Your task to perform on an android device: Show me popular videos on Youtube Image 0: 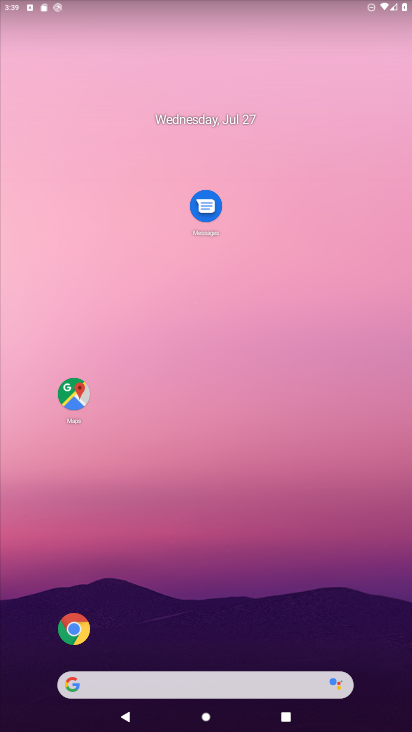
Step 0: drag from (410, 114) to (402, 65)
Your task to perform on an android device: Show me popular videos on Youtube Image 1: 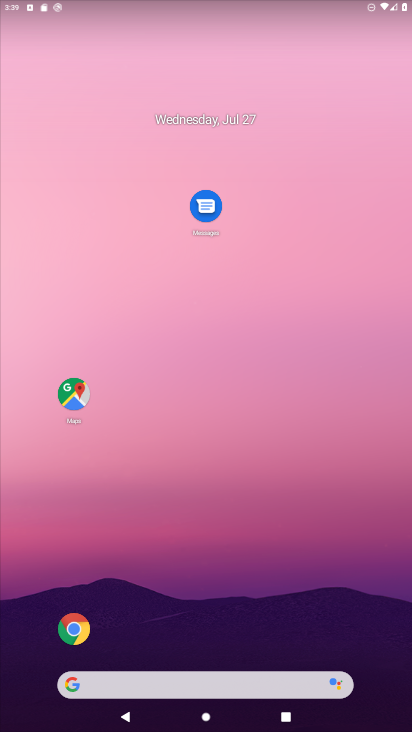
Step 1: drag from (164, 651) to (154, 220)
Your task to perform on an android device: Show me popular videos on Youtube Image 2: 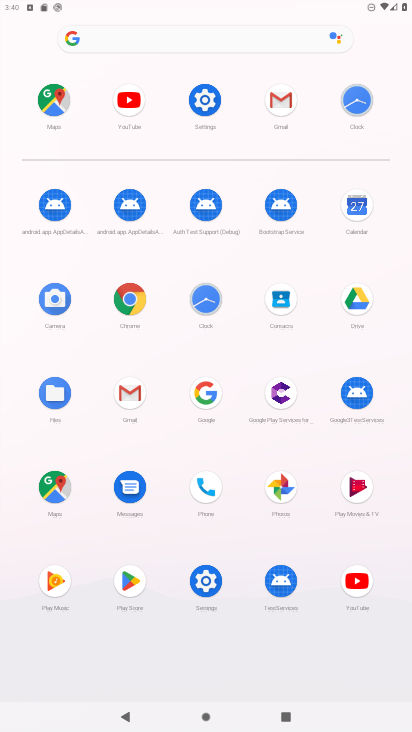
Step 2: click (124, 110)
Your task to perform on an android device: Show me popular videos on Youtube Image 3: 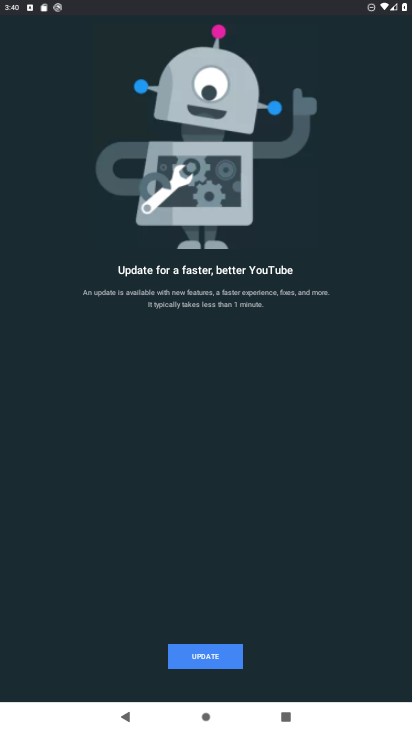
Step 3: click (200, 651)
Your task to perform on an android device: Show me popular videos on Youtube Image 4: 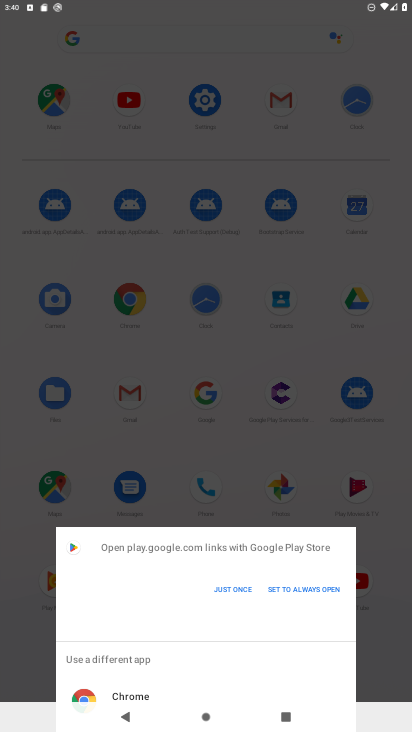
Step 4: click (227, 594)
Your task to perform on an android device: Show me popular videos on Youtube Image 5: 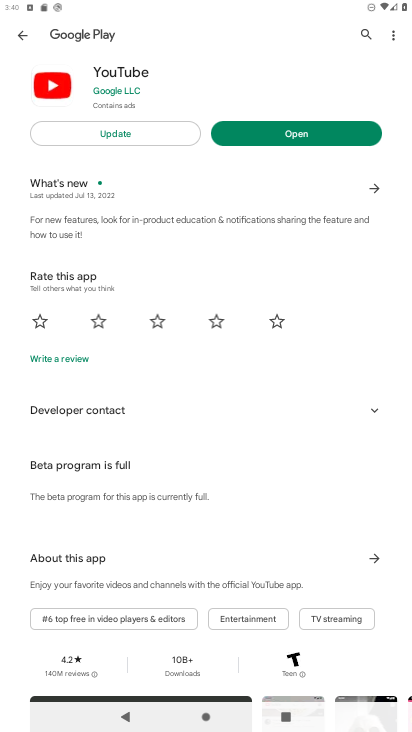
Step 5: click (136, 128)
Your task to perform on an android device: Show me popular videos on Youtube Image 6: 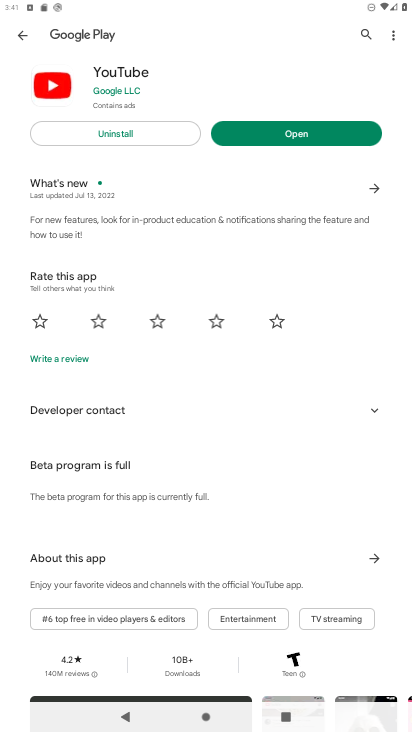
Step 6: click (282, 126)
Your task to perform on an android device: Show me popular videos on Youtube Image 7: 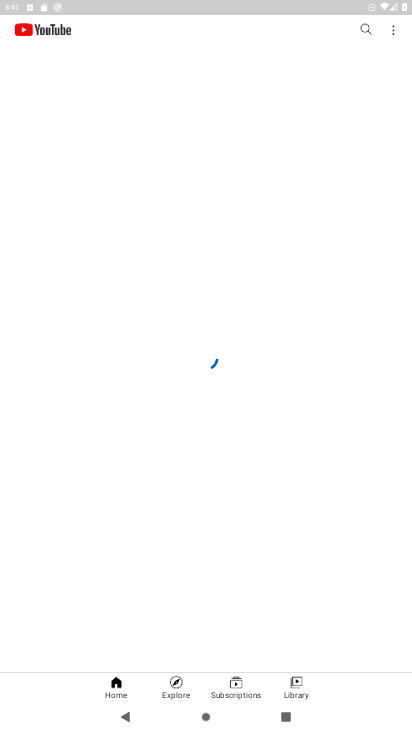
Step 7: click (180, 686)
Your task to perform on an android device: Show me popular videos on Youtube Image 8: 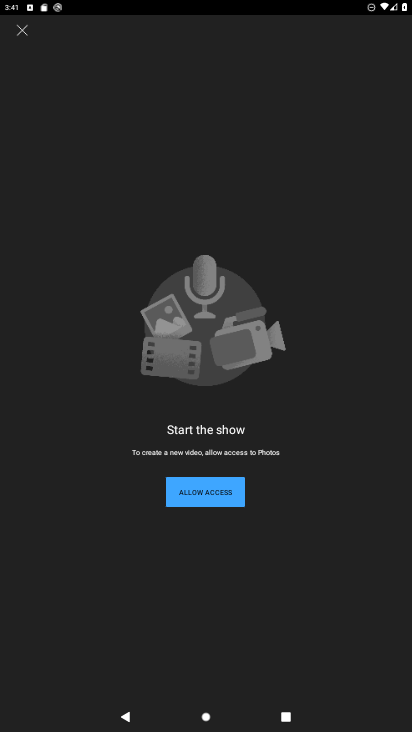
Step 8: click (29, 33)
Your task to perform on an android device: Show me popular videos on Youtube Image 9: 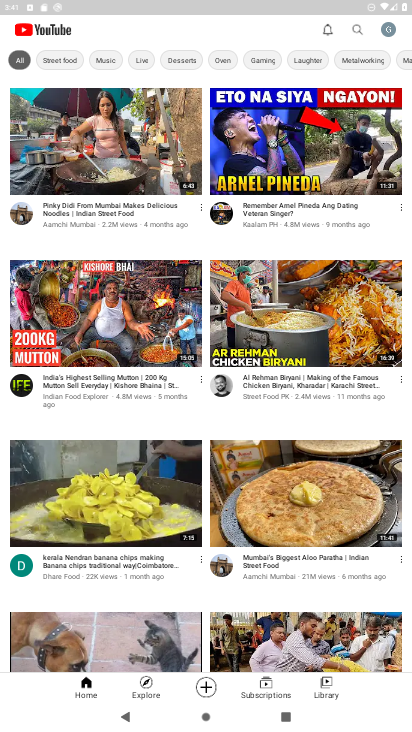
Step 9: click (65, 59)
Your task to perform on an android device: Show me popular videos on Youtube Image 10: 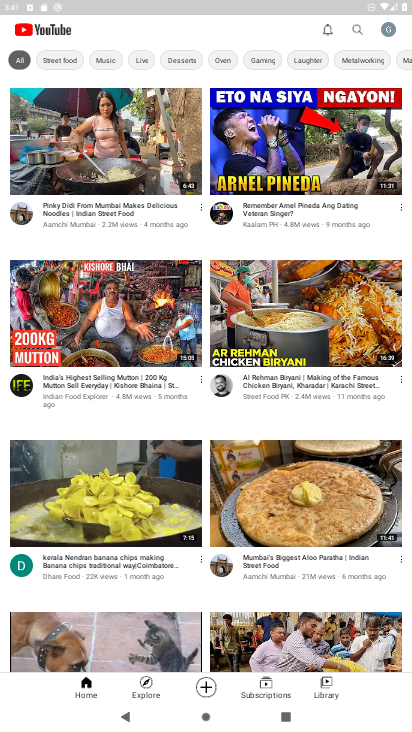
Step 10: click (65, 59)
Your task to perform on an android device: Show me popular videos on Youtube Image 11: 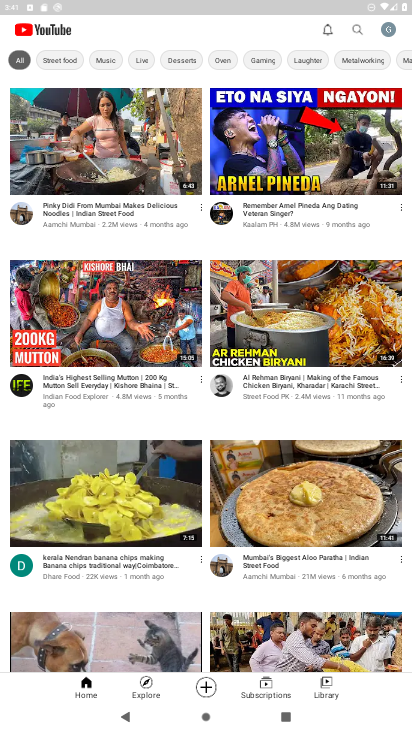
Step 11: click (82, 687)
Your task to perform on an android device: Show me popular videos on Youtube Image 12: 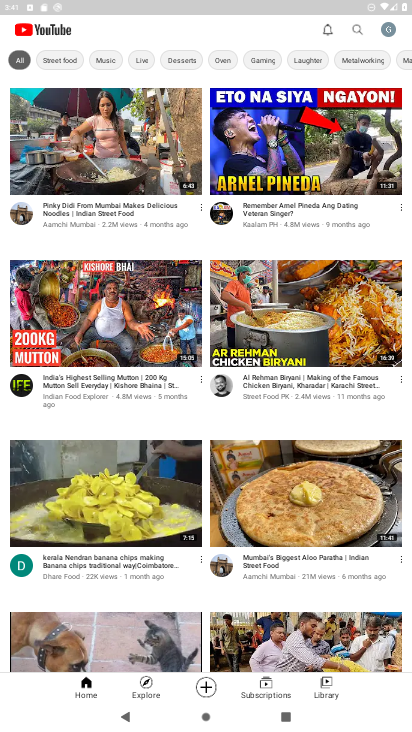
Step 12: drag from (146, 77) to (231, 566)
Your task to perform on an android device: Show me popular videos on Youtube Image 13: 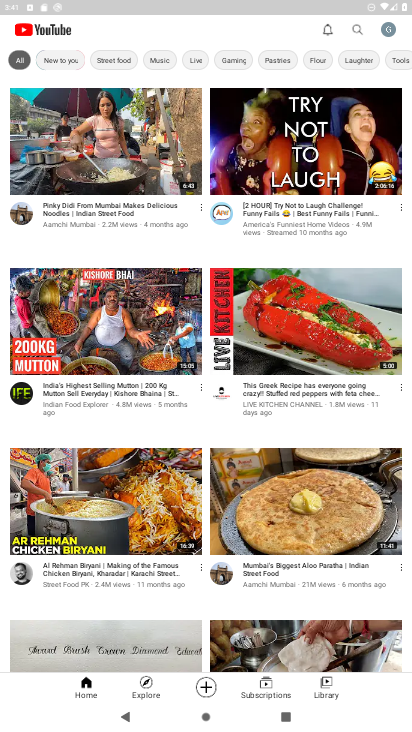
Step 13: click (138, 695)
Your task to perform on an android device: Show me popular videos on Youtube Image 14: 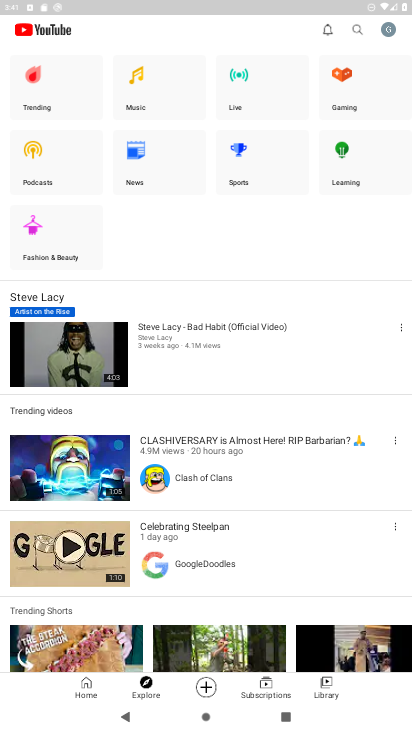
Step 14: click (46, 102)
Your task to perform on an android device: Show me popular videos on Youtube Image 15: 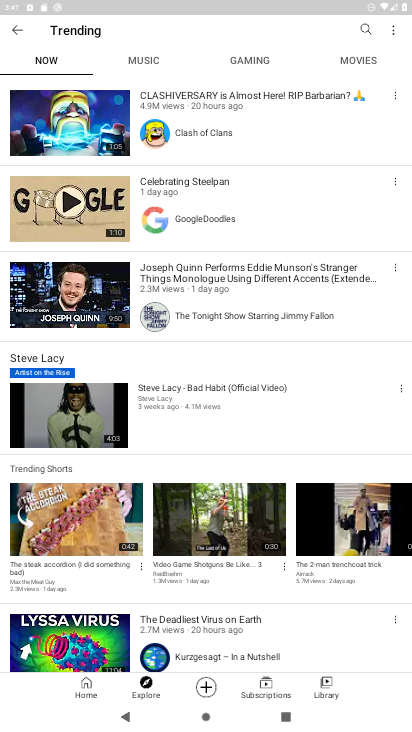
Step 15: task complete